Your task to perform on an android device: turn off javascript in the chrome app Image 0: 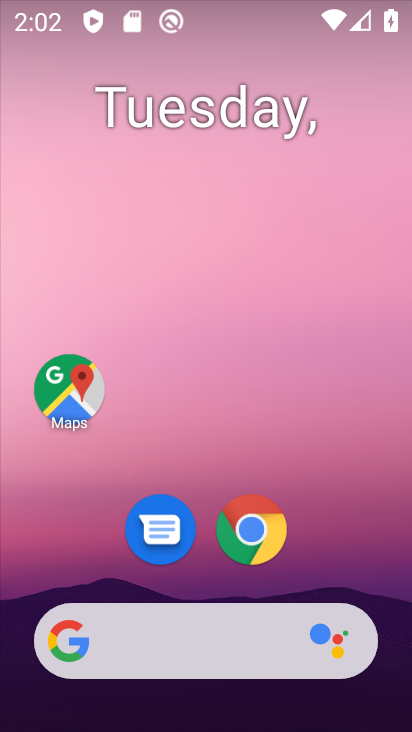
Step 0: click (265, 544)
Your task to perform on an android device: turn off javascript in the chrome app Image 1: 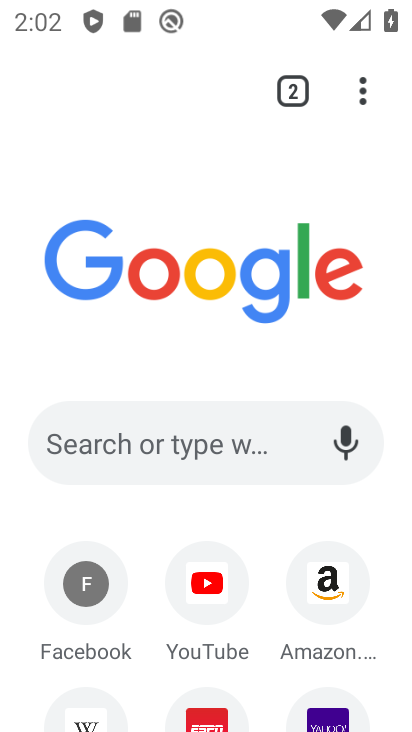
Step 1: click (370, 79)
Your task to perform on an android device: turn off javascript in the chrome app Image 2: 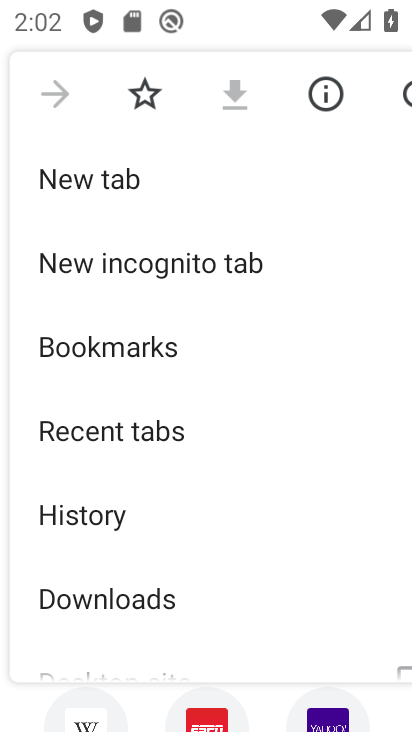
Step 2: drag from (162, 609) to (146, 137)
Your task to perform on an android device: turn off javascript in the chrome app Image 3: 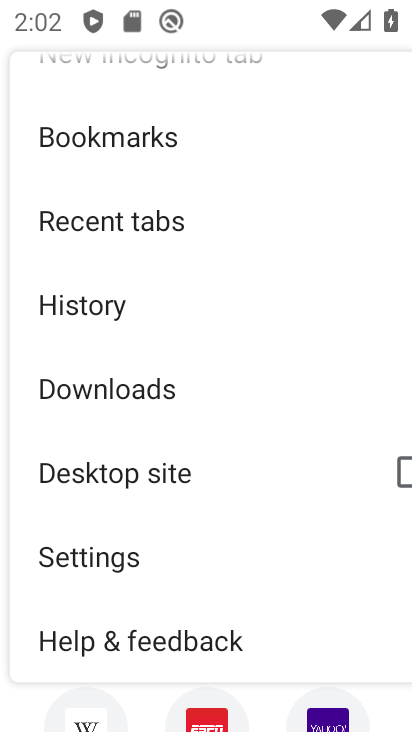
Step 3: click (201, 567)
Your task to perform on an android device: turn off javascript in the chrome app Image 4: 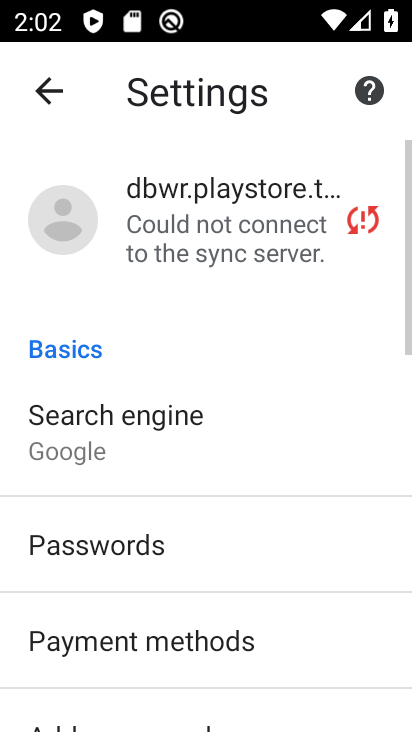
Step 4: drag from (281, 684) to (241, 207)
Your task to perform on an android device: turn off javascript in the chrome app Image 5: 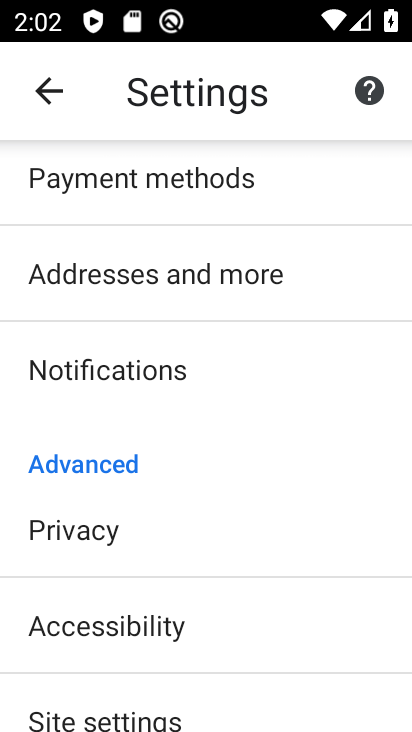
Step 5: drag from (316, 685) to (269, 240)
Your task to perform on an android device: turn off javascript in the chrome app Image 6: 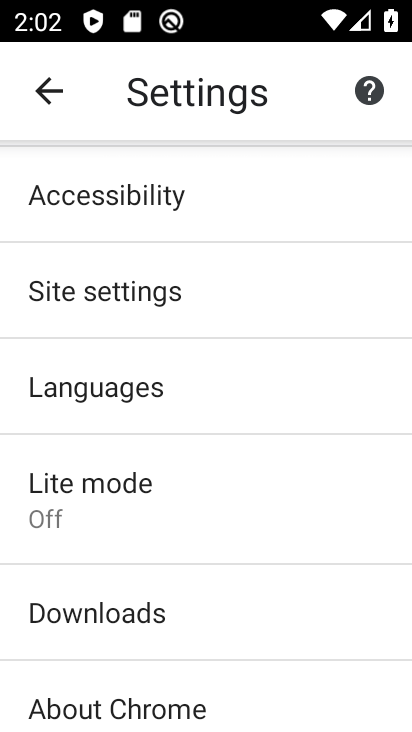
Step 6: click (242, 299)
Your task to perform on an android device: turn off javascript in the chrome app Image 7: 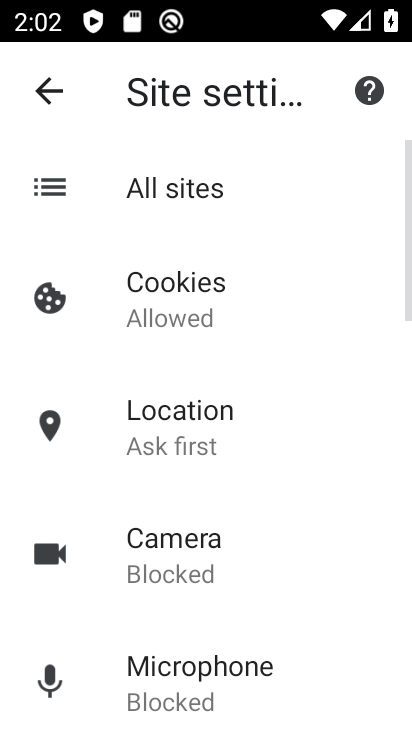
Step 7: drag from (230, 638) to (207, 229)
Your task to perform on an android device: turn off javascript in the chrome app Image 8: 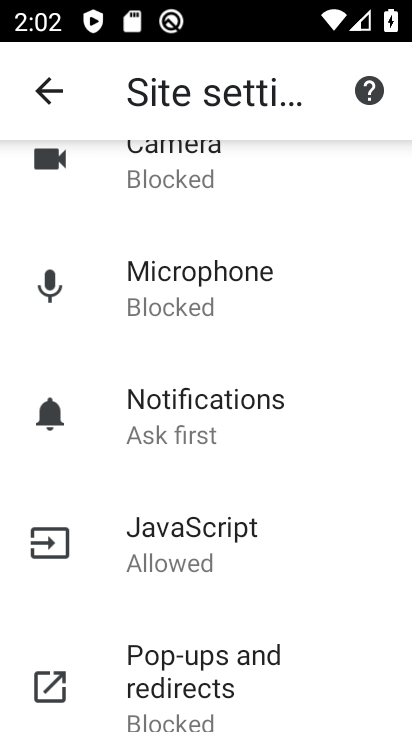
Step 8: drag from (203, 681) to (176, 275)
Your task to perform on an android device: turn off javascript in the chrome app Image 9: 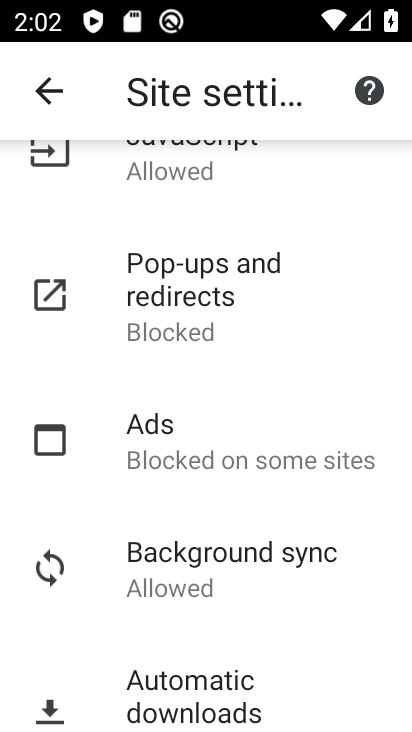
Step 9: drag from (176, 192) to (160, 517)
Your task to perform on an android device: turn off javascript in the chrome app Image 10: 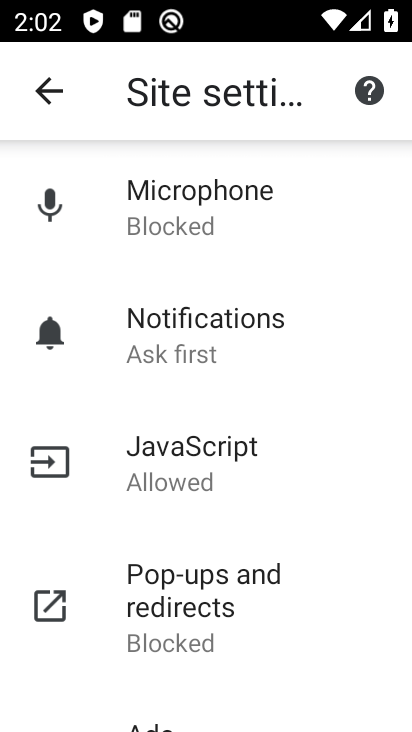
Step 10: click (163, 490)
Your task to perform on an android device: turn off javascript in the chrome app Image 11: 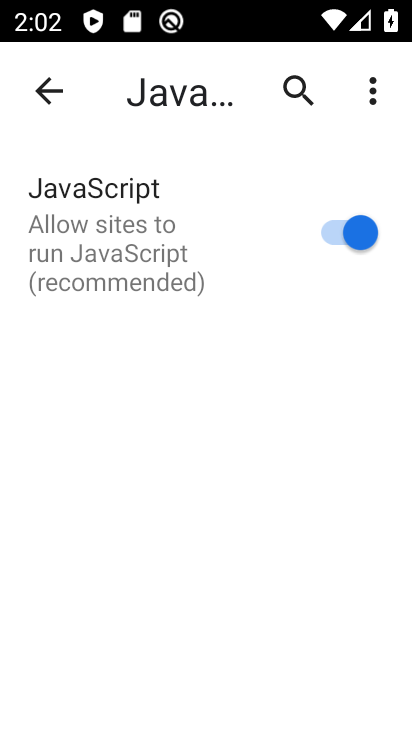
Step 11: click (351, 234)
Your task to perform on an android device: turn off javascript in the chrome app Image 12: 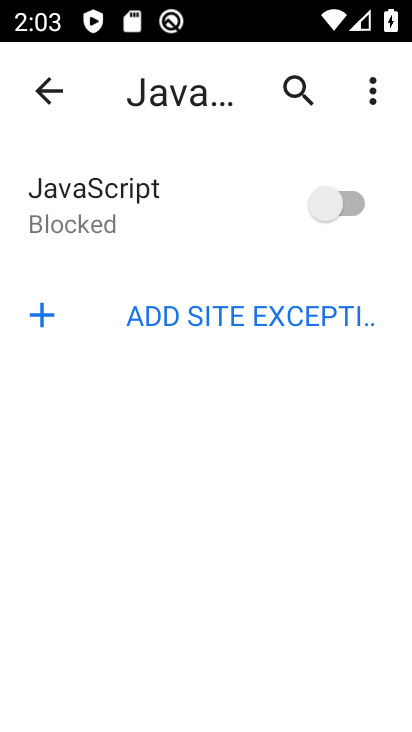
Step 12: task complete